Your task to perform on an android device: delete browsing data in the chrome app Image 0: 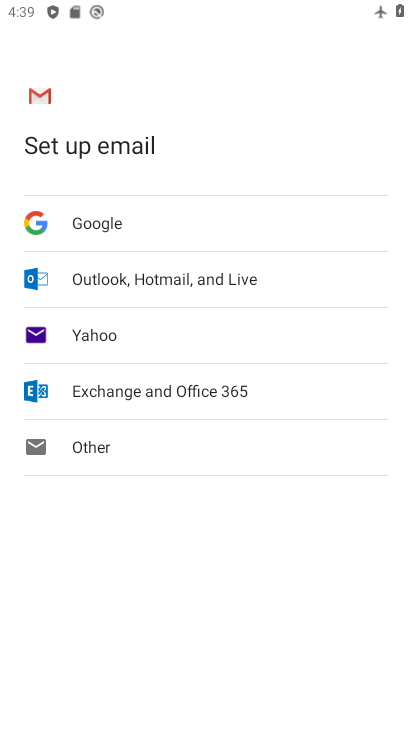
Step 0: press home button
Your task to perform on an android device: delete browsing data in the chrome app Image 1: 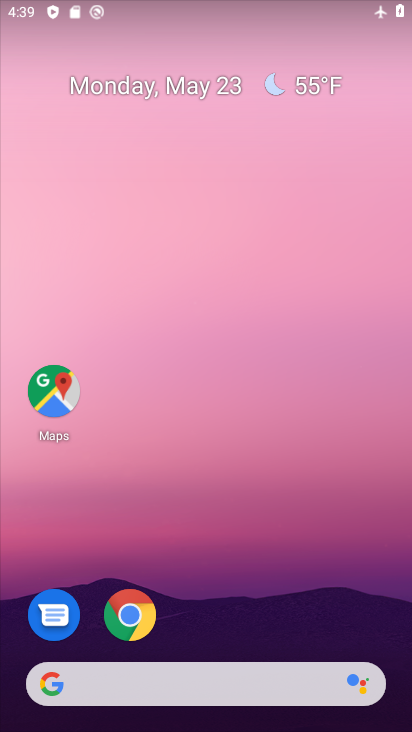
Step 1: drag from (357, 644) to (351, 197)
Your task to perform on an android device: delete browsing data in the chrome app Image 2: 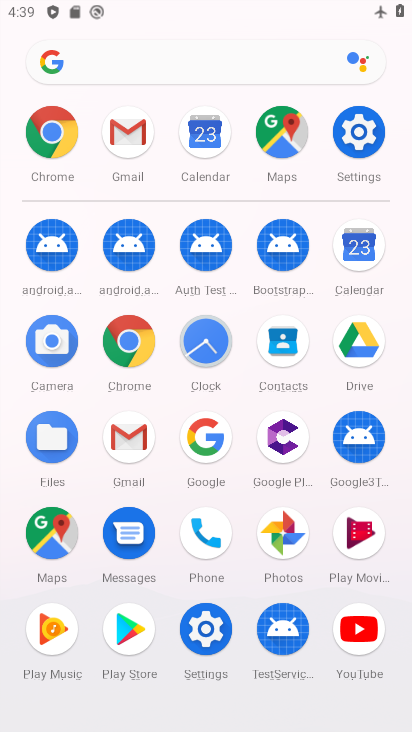
Step 2: click (107, 338)
Your task to perform on an android device: delete browsing data in the chrome app Image 3: 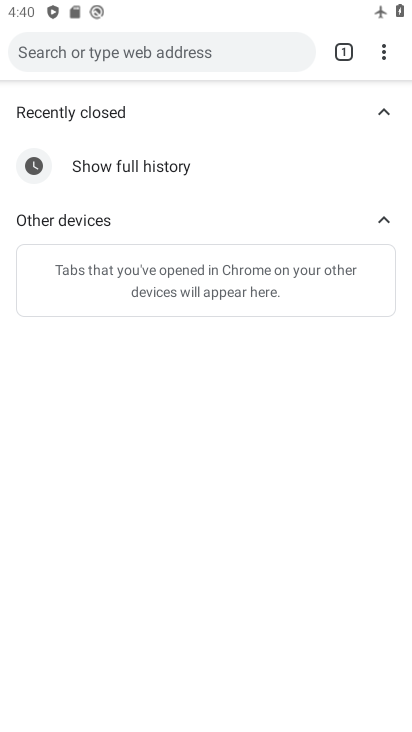
Step 3: click (386, 50)
Your task to perform on an android device: delete browsing data in the chrome app Image 4: 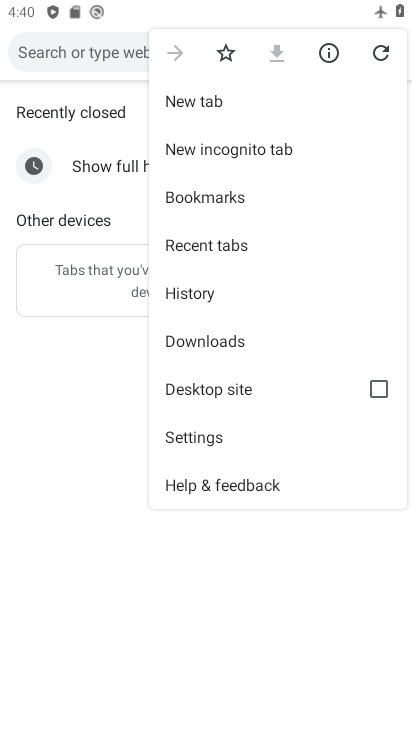
Step 4: click (198, 448)
Your task to perform on an android device: delete browsing data in the chrome app Image 5: 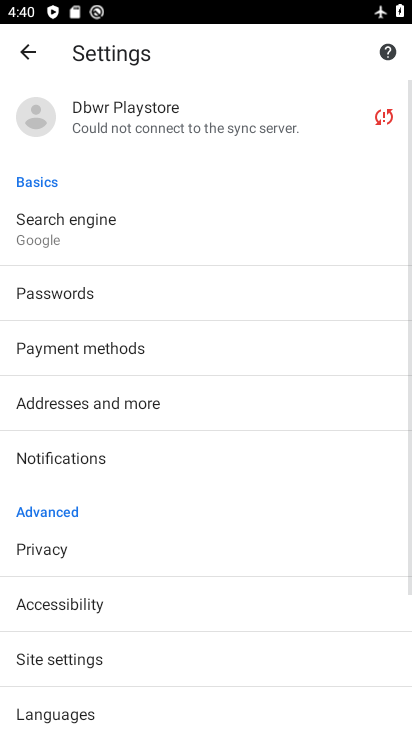
Step 5: drag from (218, 554) to (233, 445)
Your task to perform on an android device: delete browsing data in the chrome app Image 6: 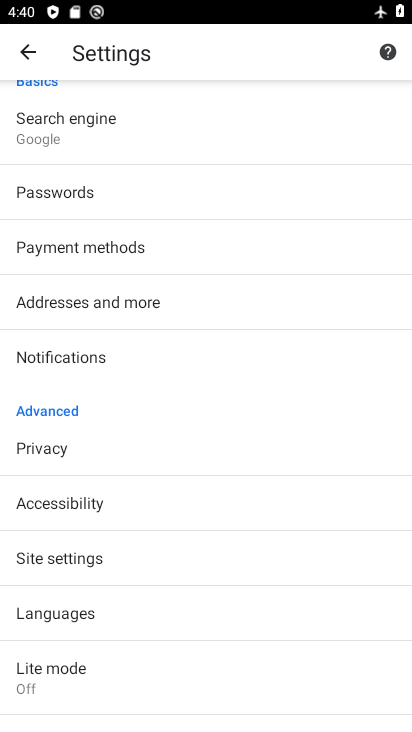
Step 6: drag from (280, 625) to (293, 535)
Your task to perform on an android device: delete browsing data in the chrome app Image 7: 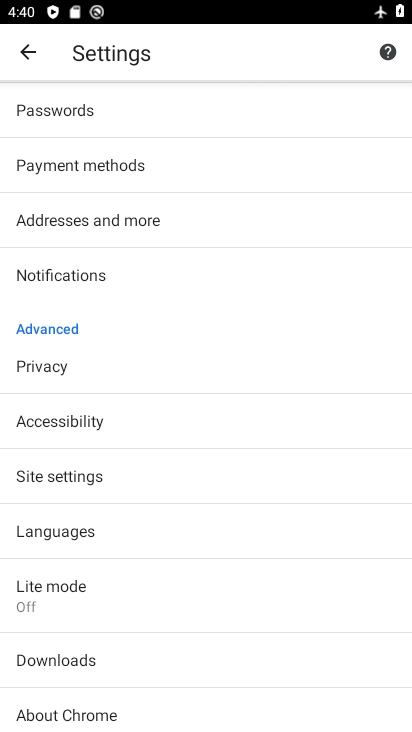
Step 7: drag from (302, 636) to (305, 540)
Your task to perform on an android device: delete browsing data in the chrome app Image 8: 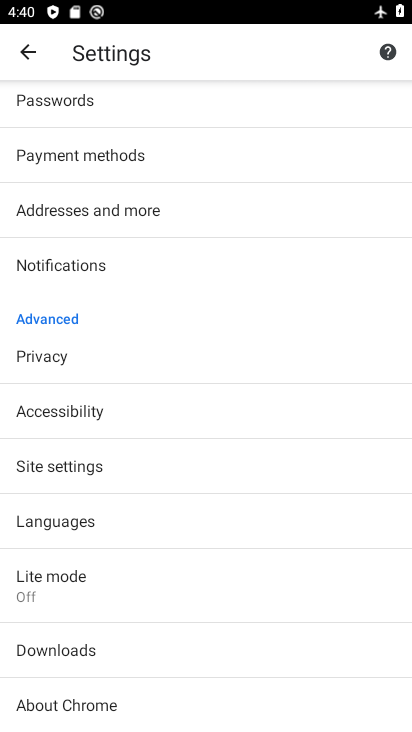
Step 8: drag from (299, 656) to (294, 524)
Your task to perform on an android device: delete browsing data in the chrome app Image 9: 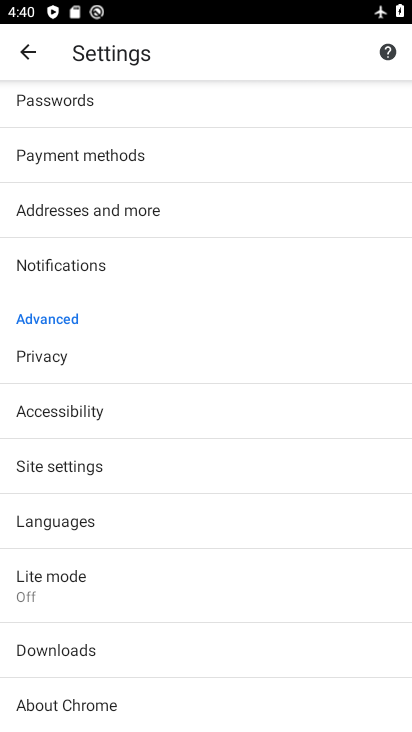
Step 9: drag from (297, 364) to (287, 476)
Your task to perform on an android device: delete browsing data in the chrome app Image 10: 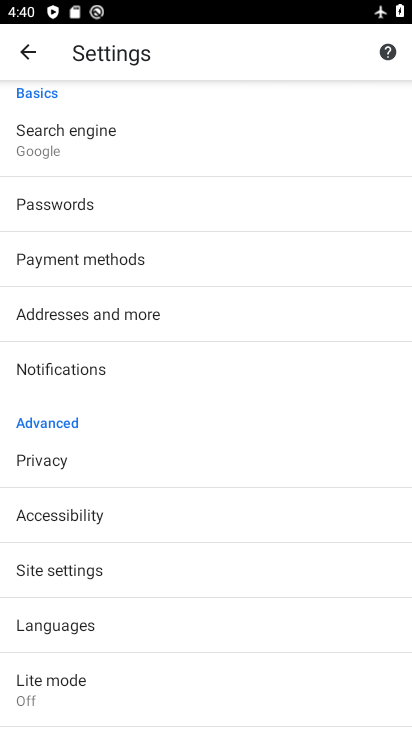
Step 10: click (208, 463)
Your task to perform on an android device: delete browsing data in the chrome app Image 11: 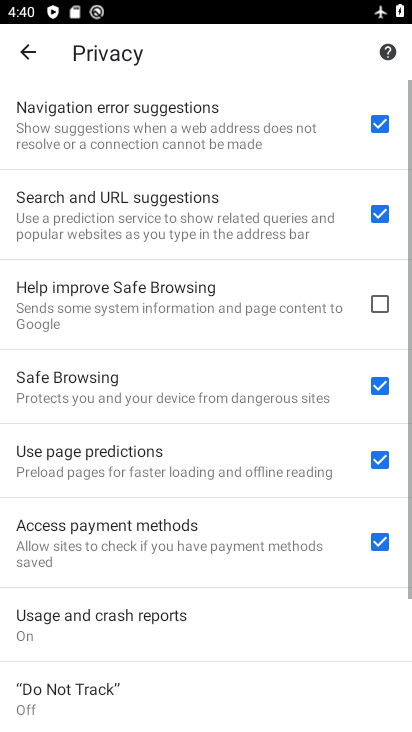
Step 11: drag from (281, 546) to (287, 467)
Your task to perform on an android device: delete browsing data in the chrome app Image 12: 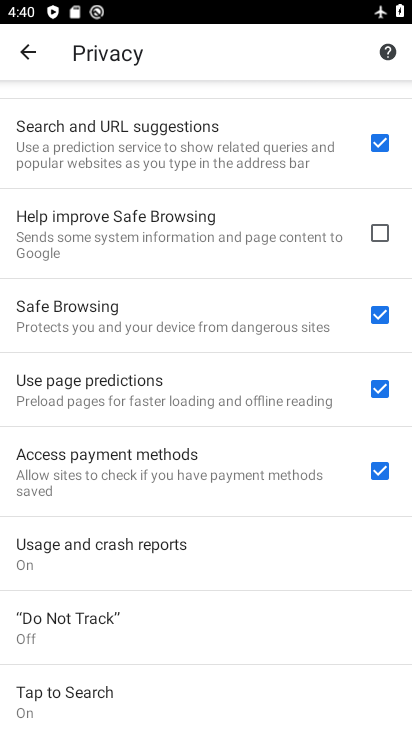
Step 12: drag from (271, 602) to (274, 510)
Your task to perform on an android device: delete browsing data in the chrome app Image 13: 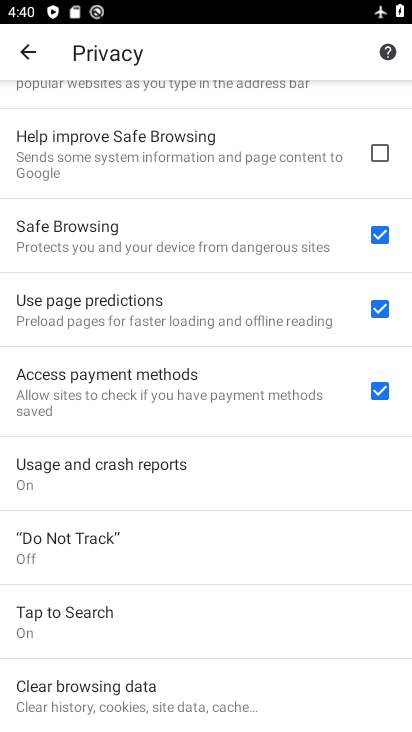
Step 13: drag from (269, 591) to (284, 502)
Your task to perform on an android device: delete browsing data in the chrome app Image 14: 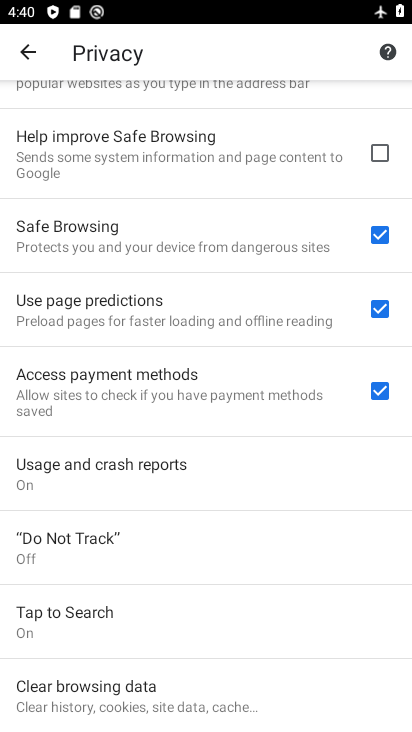
Step 14: click (239, 685)
Your task to perform on an android device: delete browsing data in the chrome app Image 15: 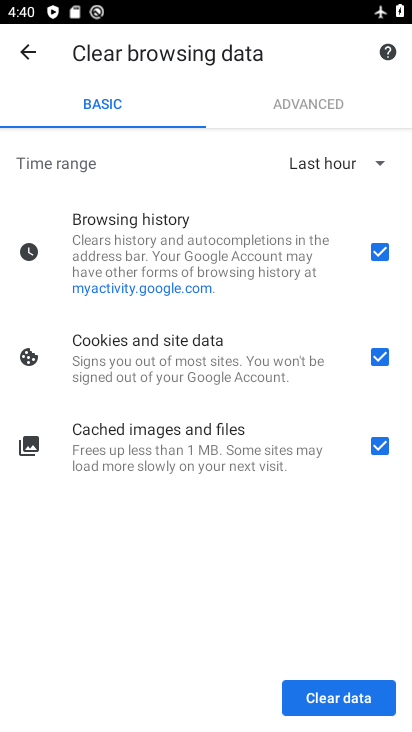
Step 15: click (305, 700)
Your task to perform on an android device: delete browsing data in the chrome app Image 16: 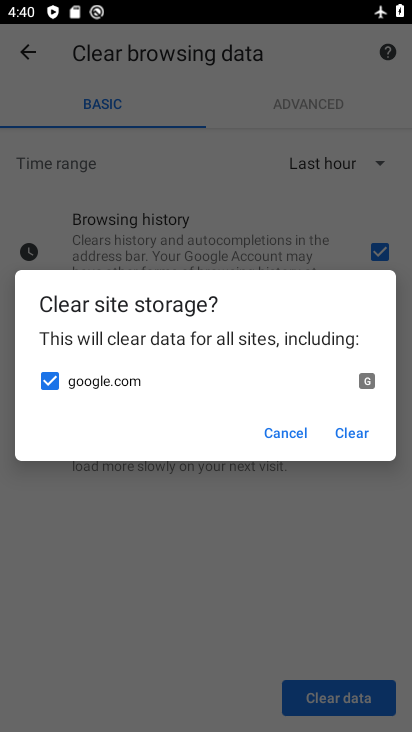
Step 16: click (354, 444)
Your task to perform on an android device: delete browsing data in the chrome app Image 17: 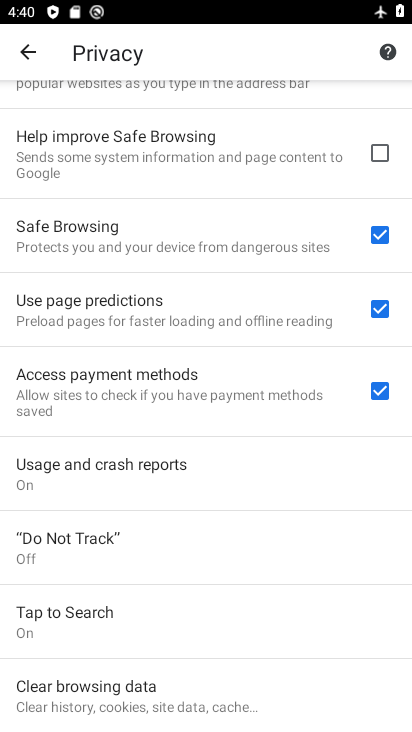
Step 17: task complete